Your task to perform on an android device: Open Google Chrome Image 0: 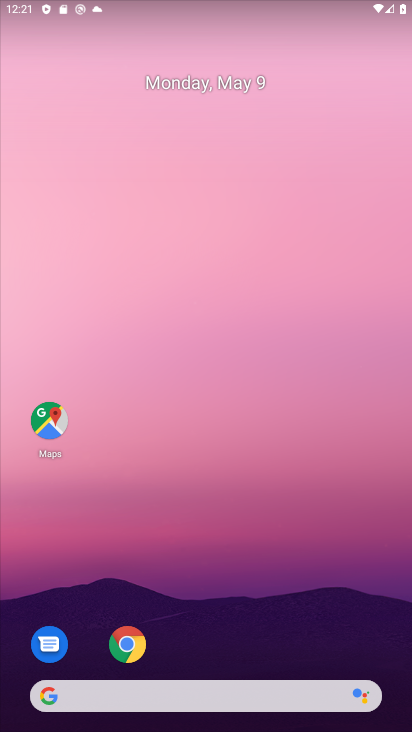
Step 0: drag from (360, 694) to (102, 173)
Your task to perform on an android device: Open Google Chrome Image 1: 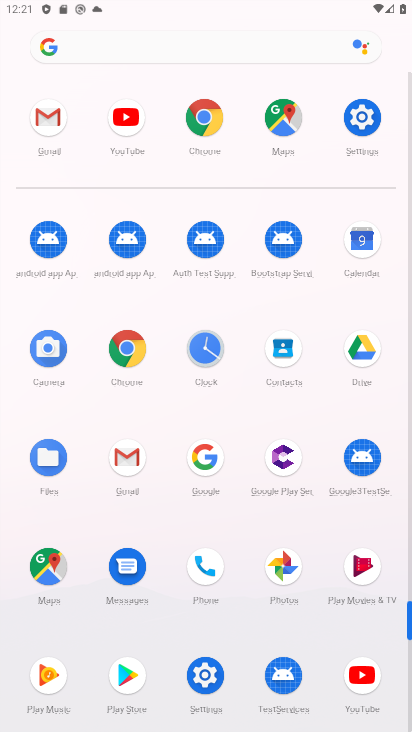
Step 1: click (197, 119)
Your task to perform on an android device: Open Google Chrome Image 2: 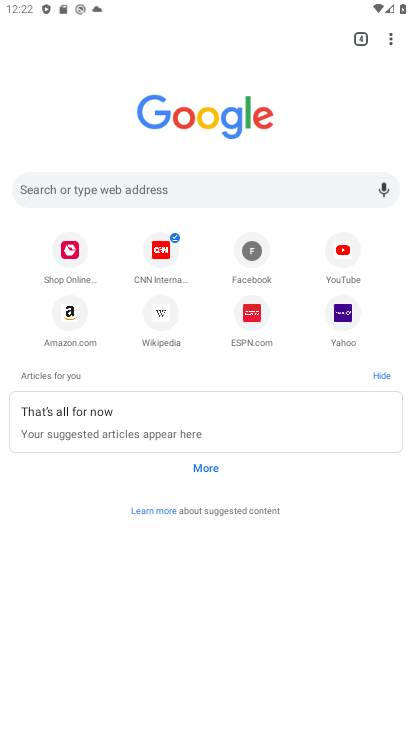
Step 2: task complete